Your task to perform on an android device: turn off notifications settings in the gmail app Image 0: 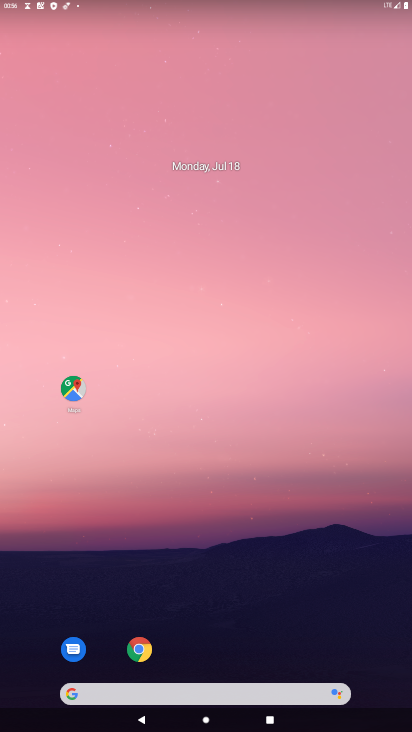
Step 0: drag from (184, 612) to (214, 95)
Your task to perform on an android device: turn off notifications settings in the gmail app Image 1: 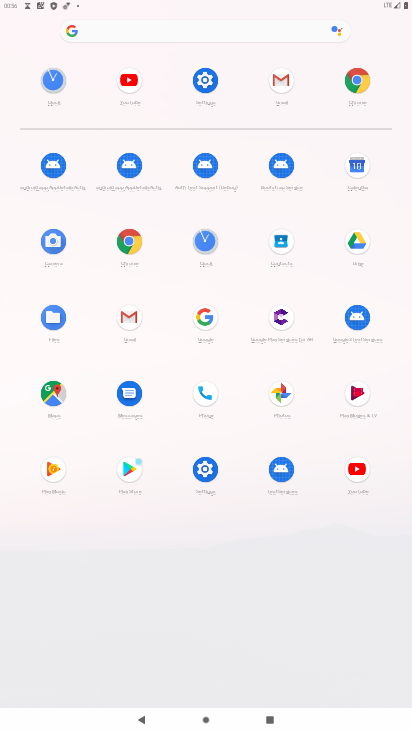
Step 1: click (134, 322)
Your task to perform on an android device: turn off notifications settings in the gmail app Image 2: 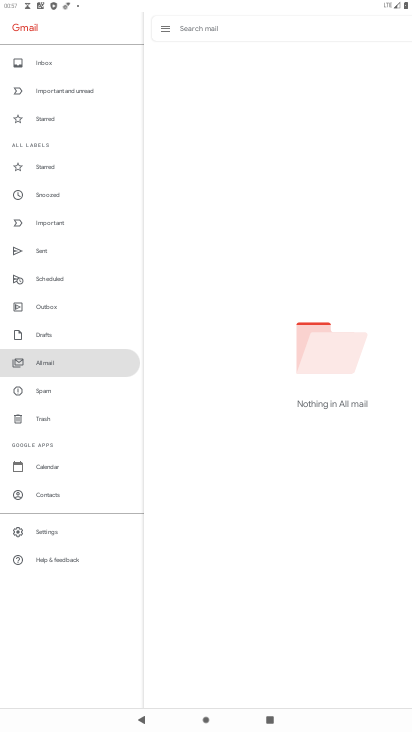
Step 2: click (45, 533)
Your task to perform on an android device: turn off notifications settings in the gmail app Image 3: 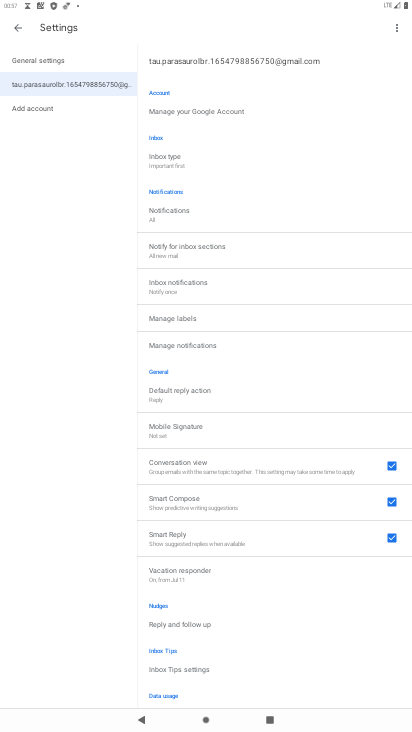
Step 3: click (178, 346)
Your task to perform on an android device: turn off notifications settings in the gmail app Image 4: 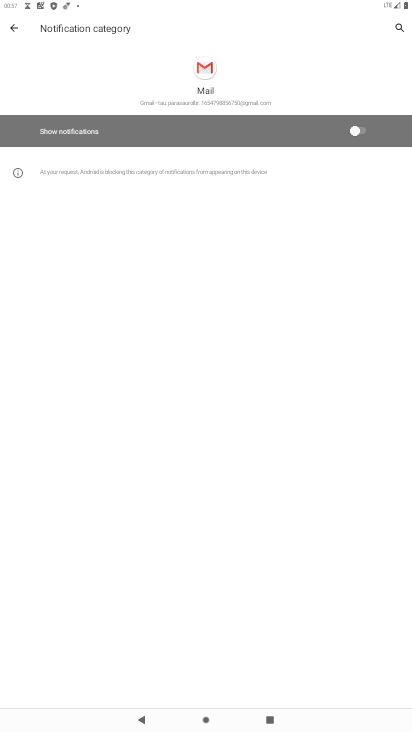
Step 4: task complete